Your task to perform on an android device: Go to Reddit.com Image 0: 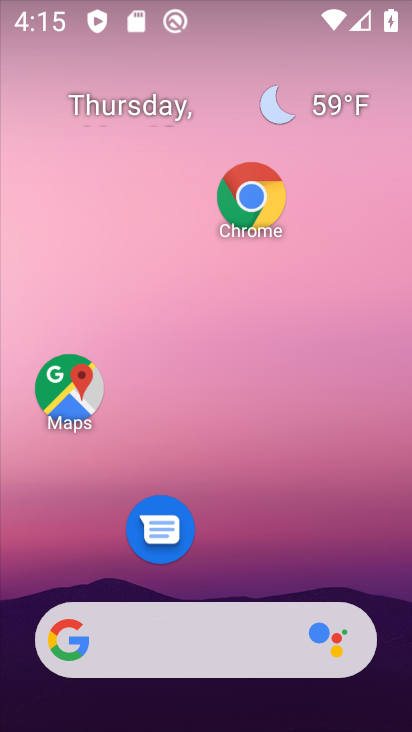
Step 0: click (250, 196)
Your task to perform on an android device: Go to Reddit.com Image 1: 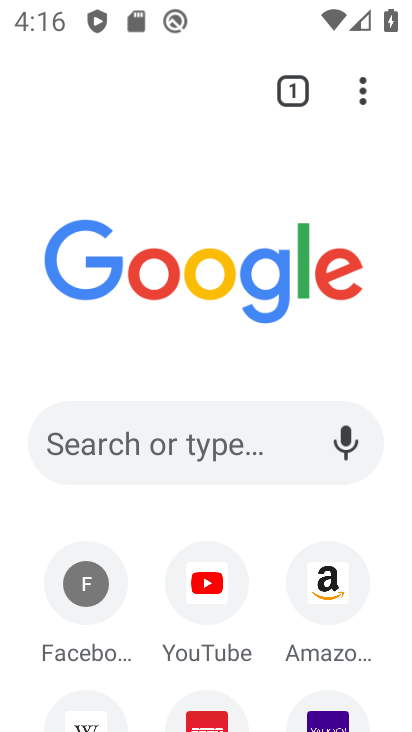
Step 1: click (160, 413)
Your task to perform on an android device: Go to Reddit.com Image 2: 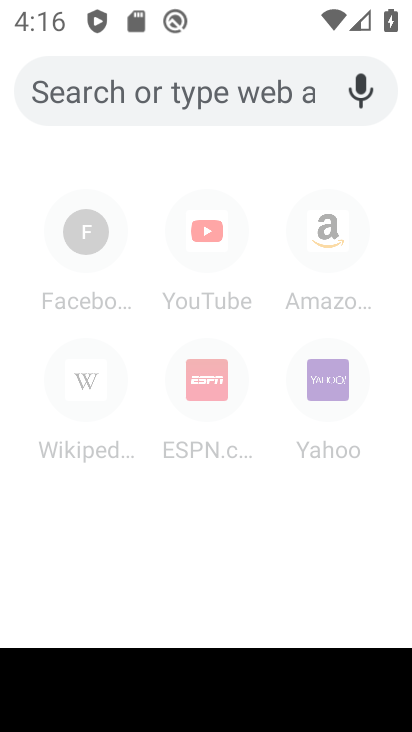
Step 2: type "reddit"
Your task to perform on an android device: Go to Reddit.com Image 3: 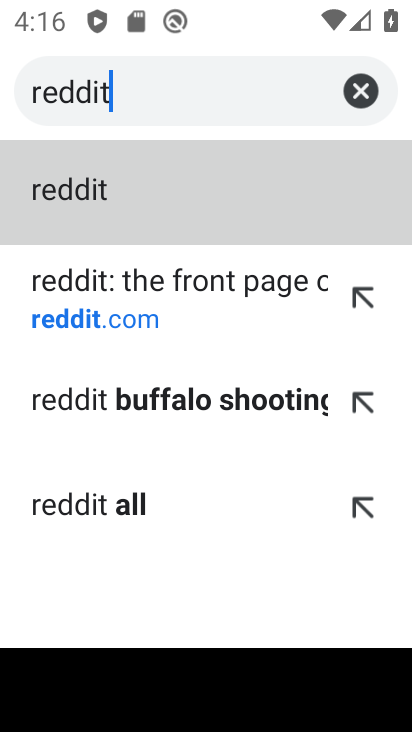
Step 3: click (183, 303)
Your task to perform on an android device: Go to Reddit.com Image 4: 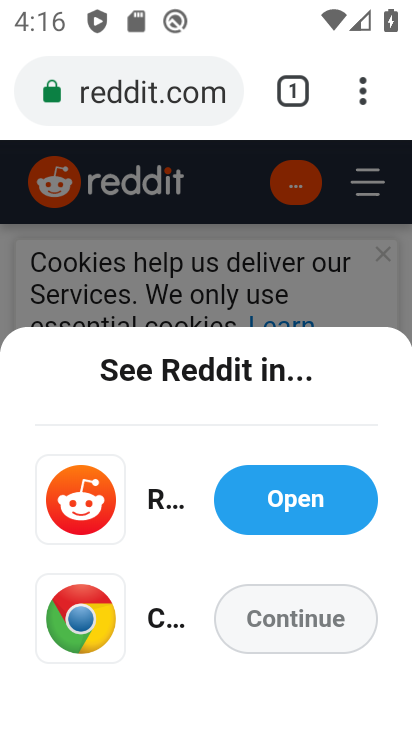
Step 4: click (305, 614)
Your task to perform on an android device: Go to Reddit.com Image 5: 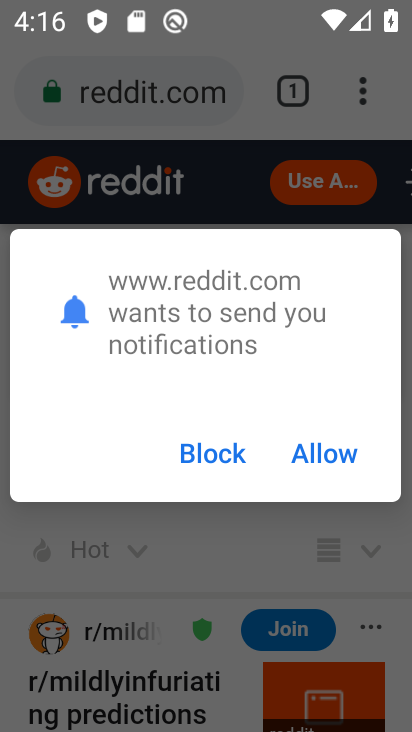
Step 5: click (216, 456)
Your task to perform on an android device: Go to Reddit.com Image 6: 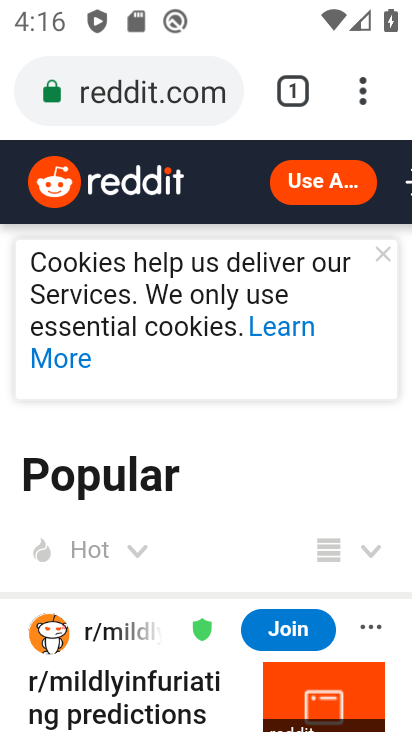
Step 6: task complete